Your task to perform on an android device: turn smart compose on in the gmail app Image 0: 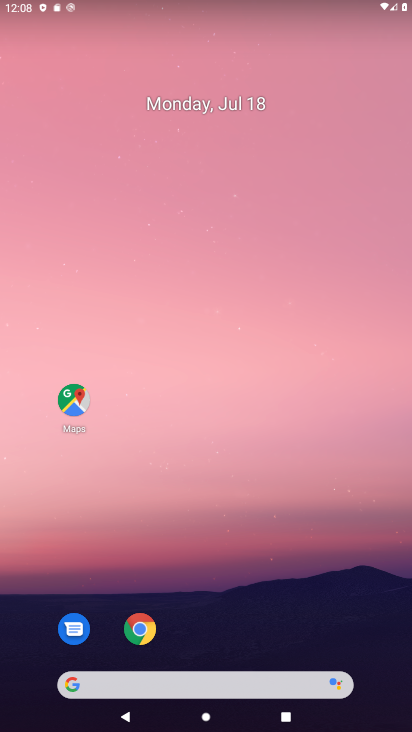
Step 0: press home button
Your task to perform on an android device: turn smart compose on in the gmail app Image 1: 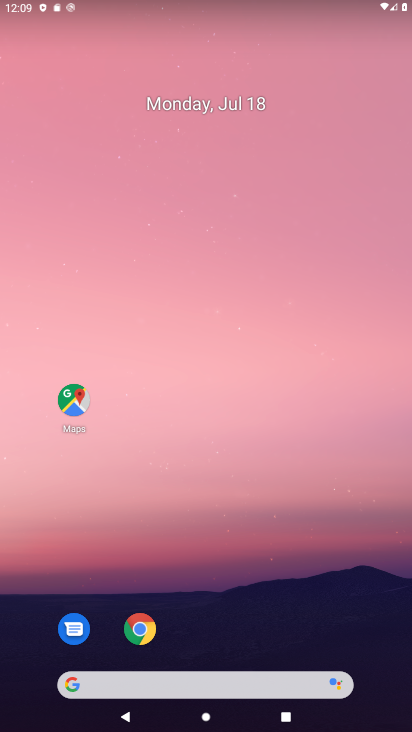
Step 1: drag from (189, 609) to (313, 76)
Your task to perform on an android device: turn smart compose on in the gmail app Image 2: 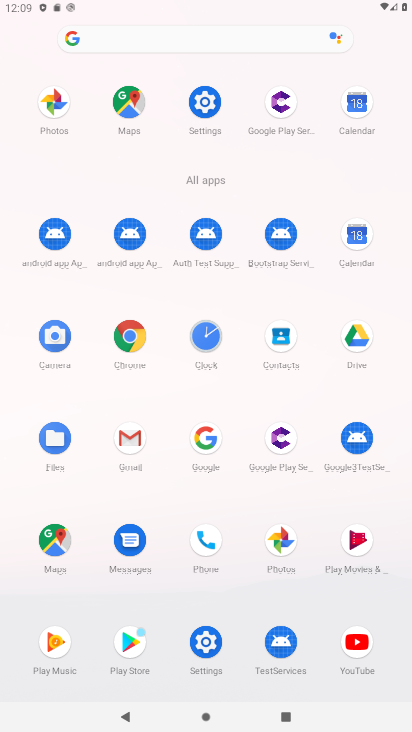
Step 2: click (110, 452)
Your task to perform on an android device: turn smart compose on in the gmail app Image 3: 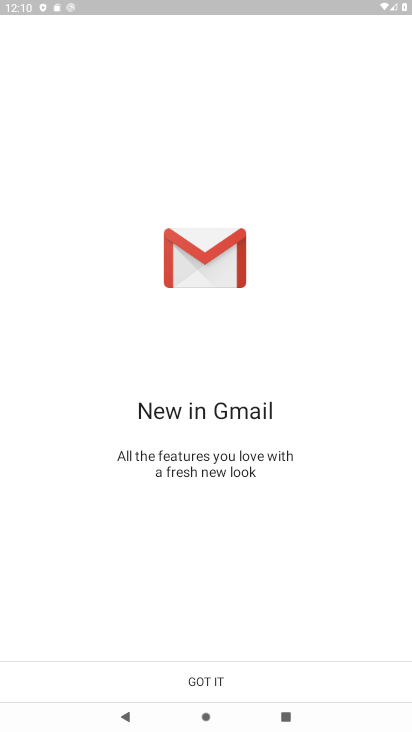
Step 3: click (209, 662)
Your task to perform on an android device: turn smart compose on in the gmail app Image 4: 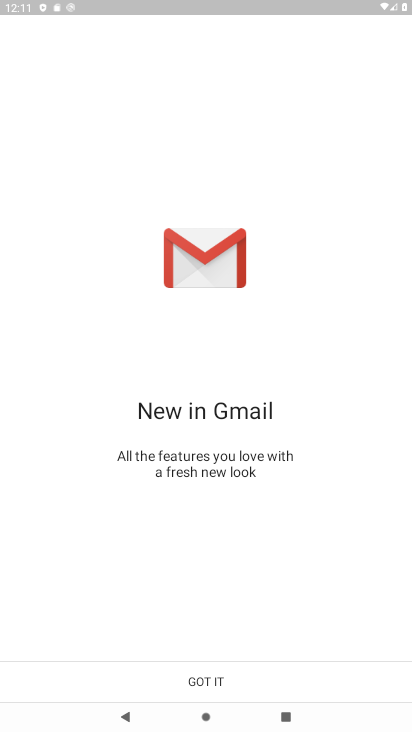
Step 4: click (183, 683)
Your task to perform on an android device: turn smart compose on in the gmail app Image 5: 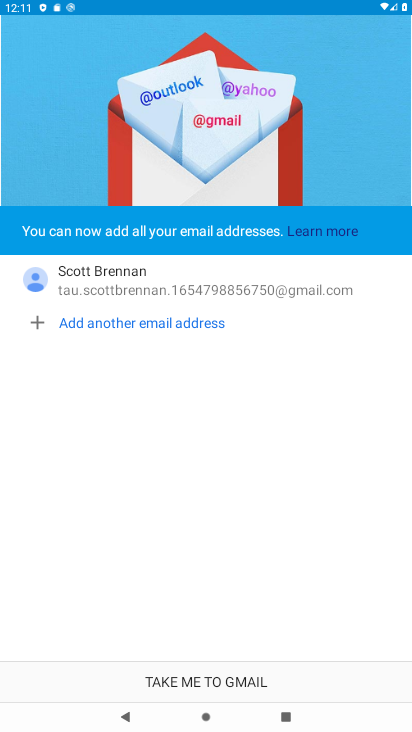
Step 5: click (183, 683)
Your task to perform on an android device: turn smart compose on in the gmail app Image 6: 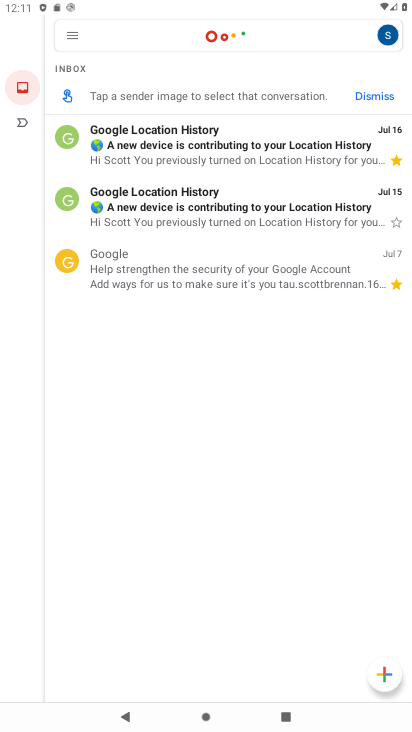
Step 6: click (79, 37)
Your task to perform on an android device: turn smart compose on in the gmail app Image 7: 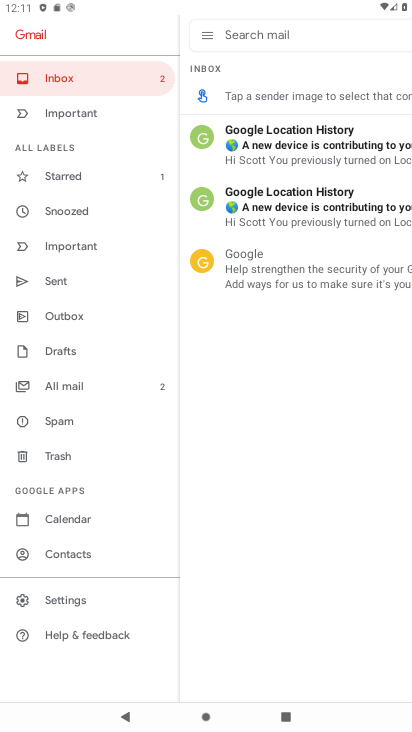
Step 7: click (41, 604)
Your task to perform on an android device: turn smart compose on in the gmail app Image 8: 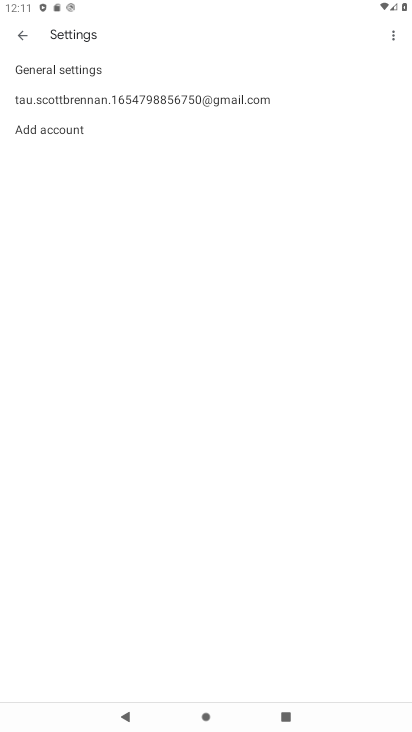
Step 8: click (128, 103)
Your task to perform on an android device: turn smart compose on in the gmail app Image 9: 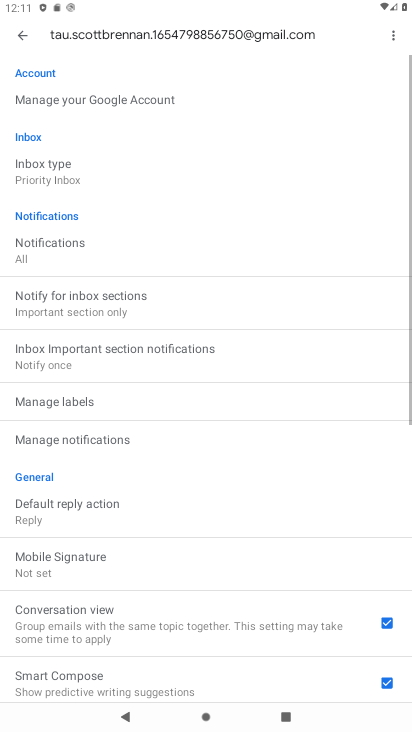
Step 9: task complete